Your task to perform on an android device: What's the weather? Image 0: 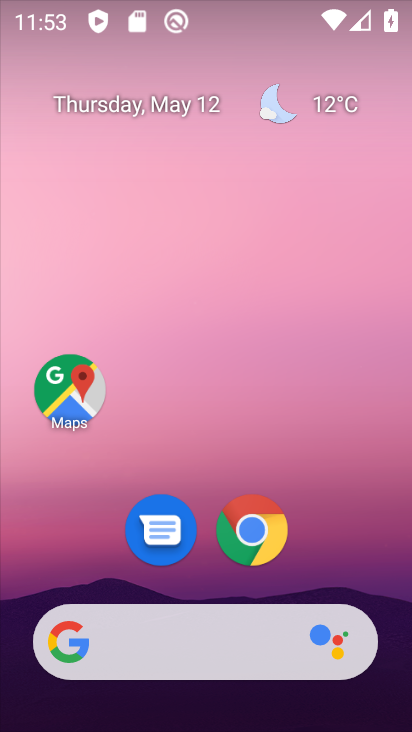
Step 0: click (338, 94)
Your task to perform on an android device: What's the weather? Image 1: 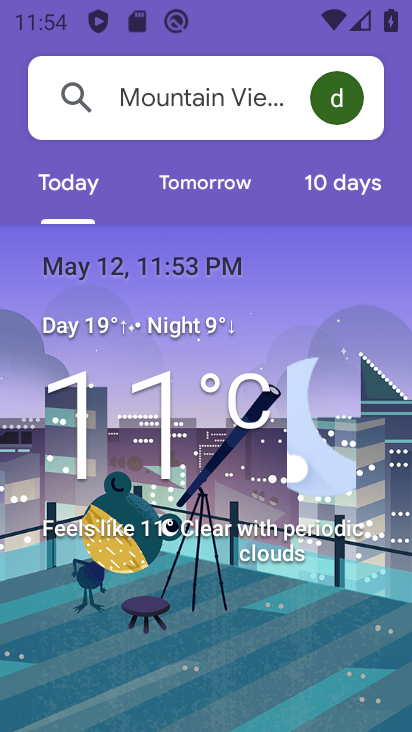
Step 1: task complete